Your task to perform on an android device: toggle sleep mode Image 0: 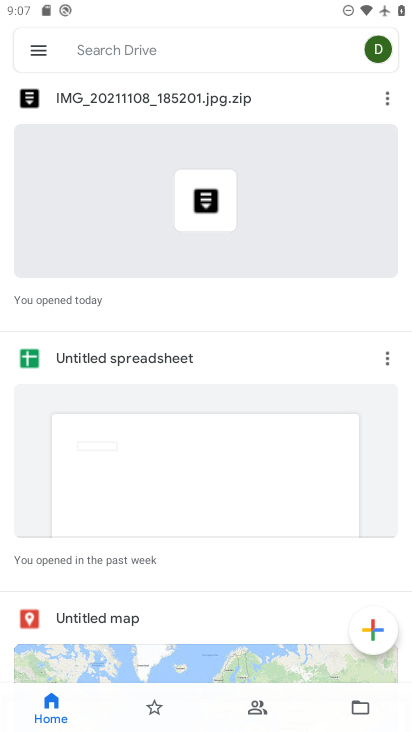
Step 0: press home button
Your task to perform on an android device: toggle sleep mode Image 1: 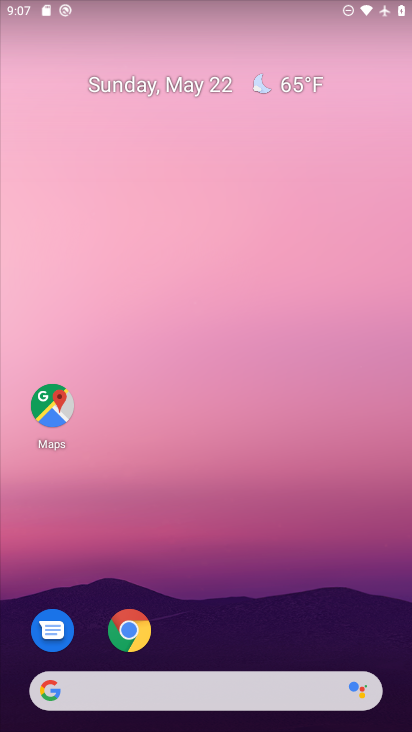
Step 1: drag from (186, 679) to (355, 148)
Your task to perform on an android device: toggle sleep mode Image 2: 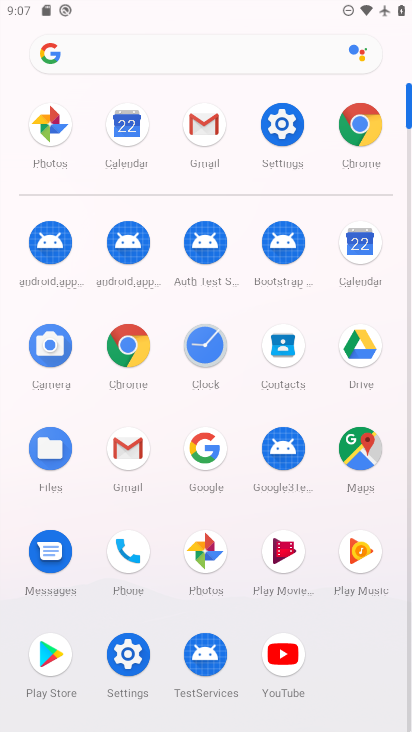
Step 2: click (281, 121)
Your task to perform on an android device: toggle sleep mode Image 3: 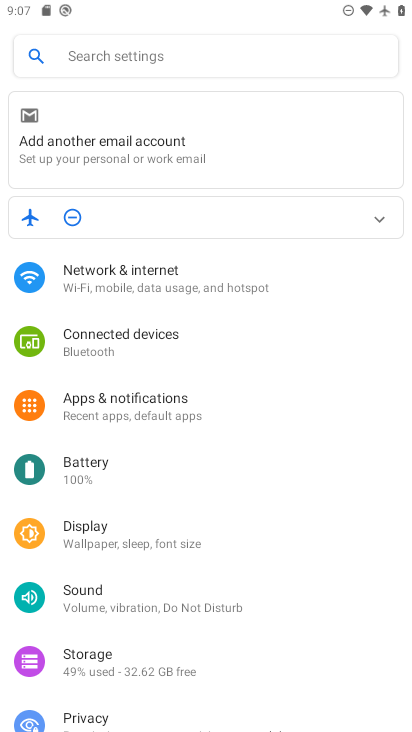
Step 3: click (139, 541)
Your task to perform on an android device: toggle sleep mode Image 4: 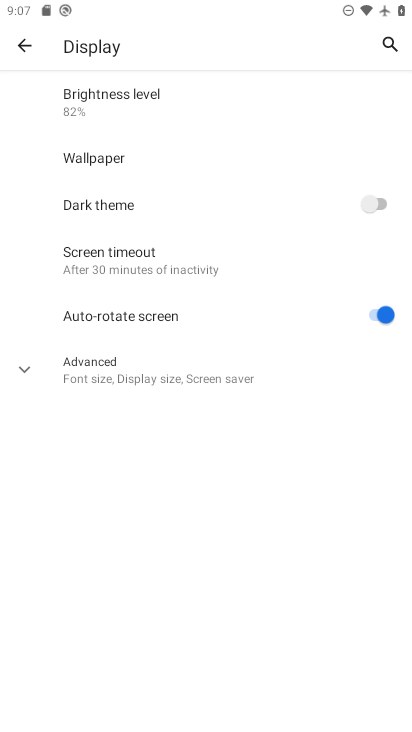
Step 4: task complete